Your task to perform on an android device: add a contact Image 0: 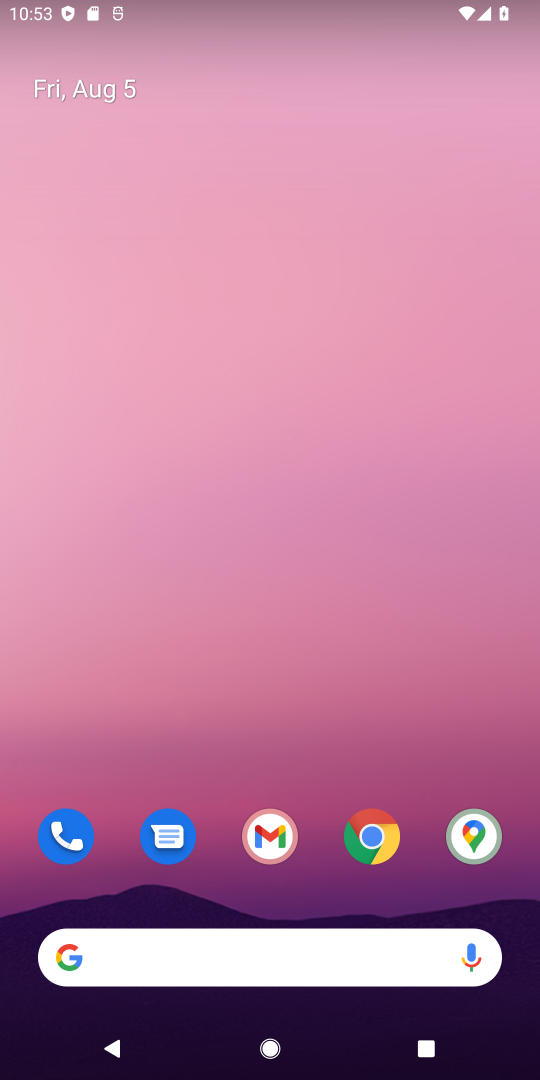
Step 0: drag from (318, 801) to (341, 67)
Your task to perform on an android device: add a contact Image 1: 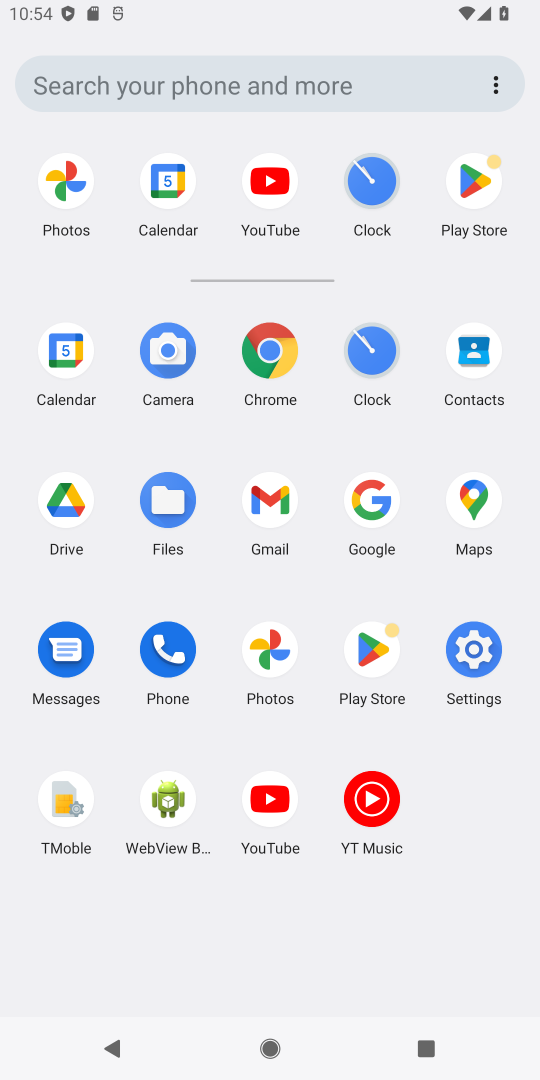
Step 1: click (474, 354)
Your task to perform on an android device: add a contact Image 2: 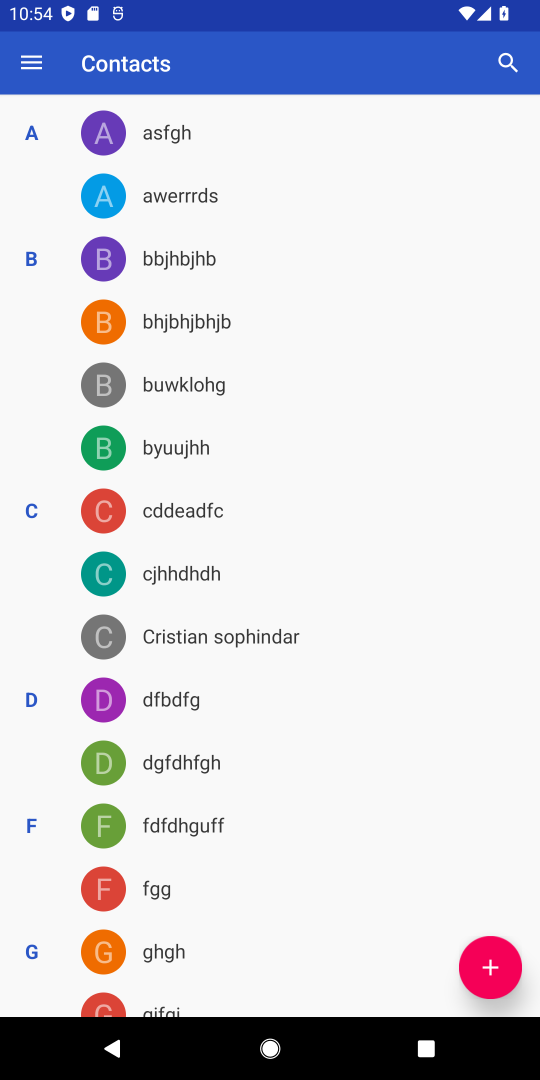
Step 2: click (488, 958)
Your task to perform on an android device: add a contact Image 3: 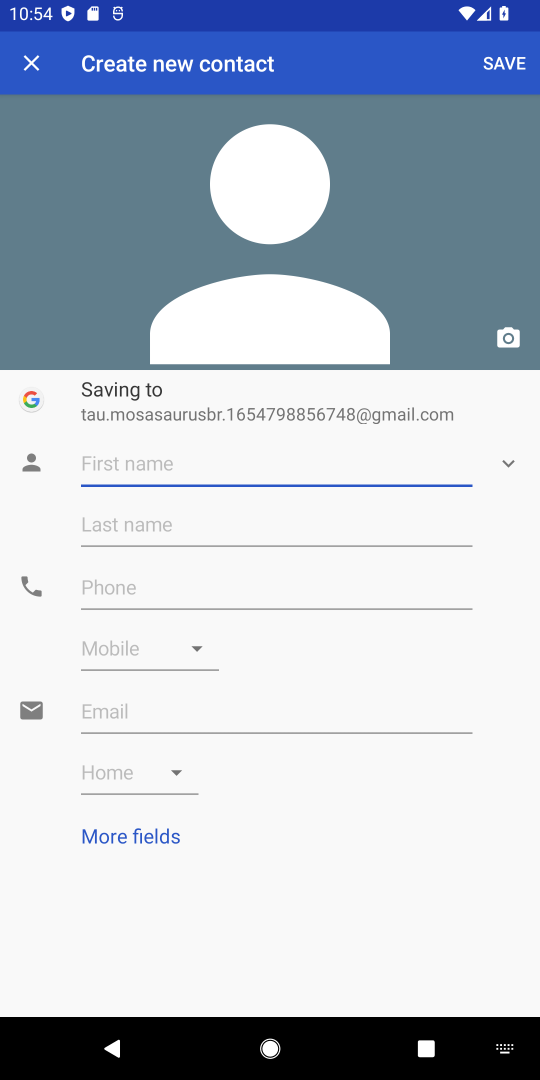
Step 3: type "hope"
Your task to perform on an android device: add a contact Image 4: 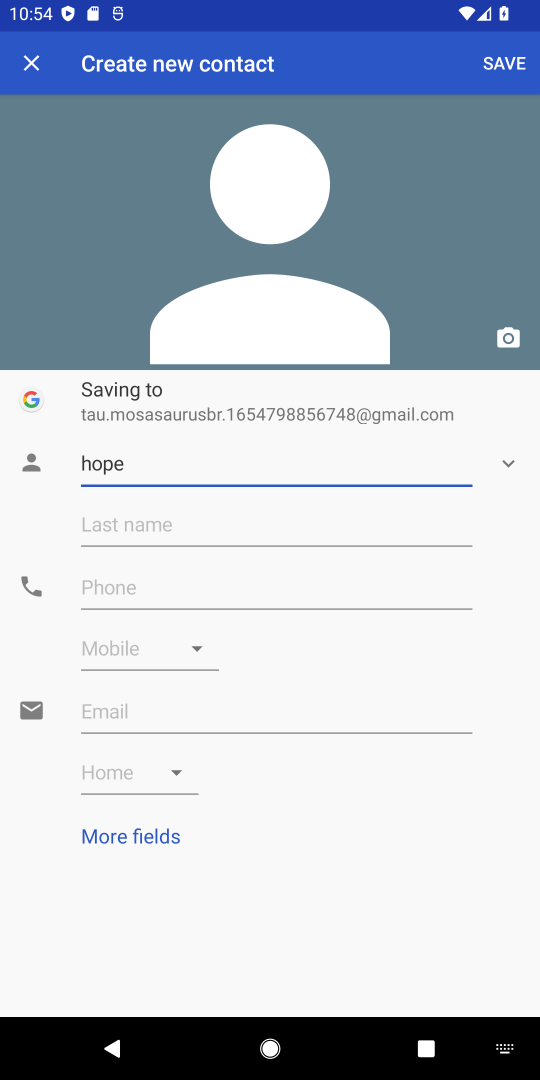
Step 4: click (505, 55)
Your task to perform on an android device: add a contact Image 5: 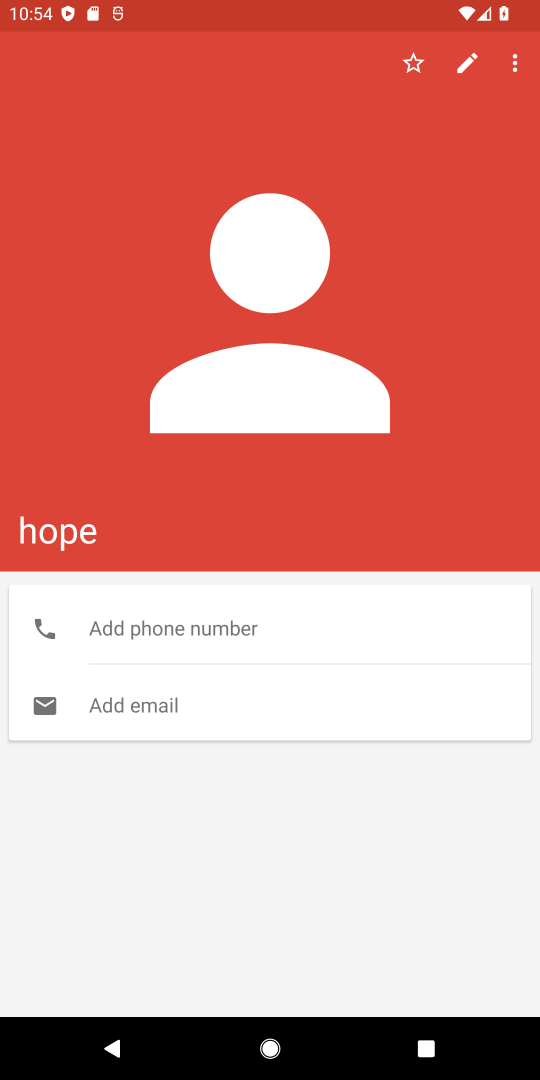
Step 5: task complete